Your task to perform on an android device: change the clock style Image 0: 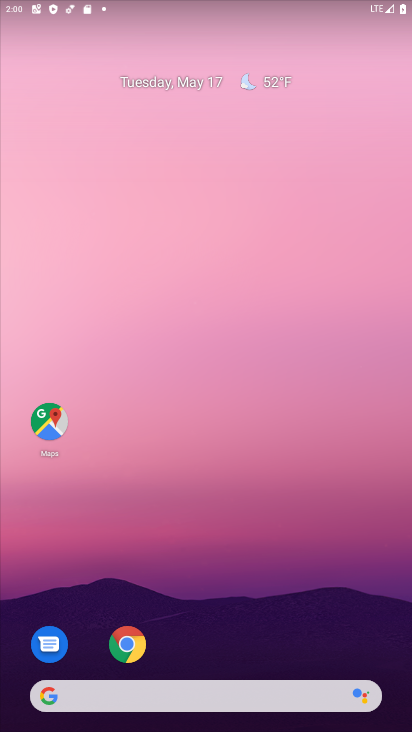
Step 0: drag from (194, 695) to (170, 101)
Your task to perform on an android device: change the clock style Image 1: 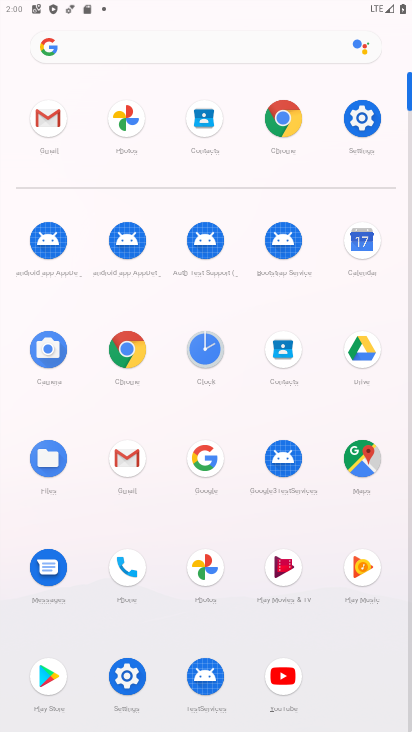
Step 1: click (207, 350)
Your task to perform on an android device: change the clock style Image 2: 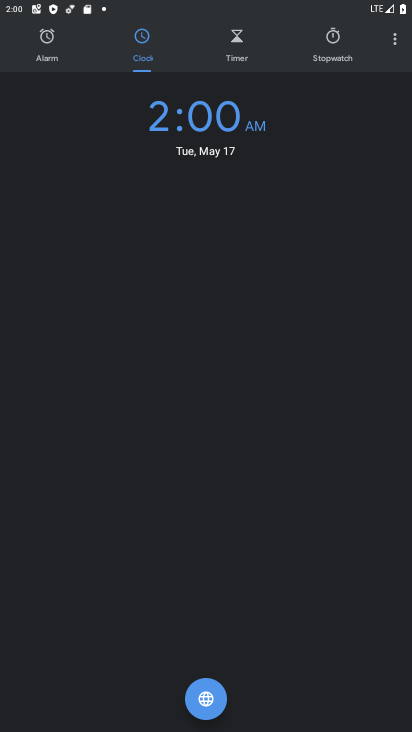
Step 2: click (386, 41)
Your task to perform on an android device: change the clock style Image 3: 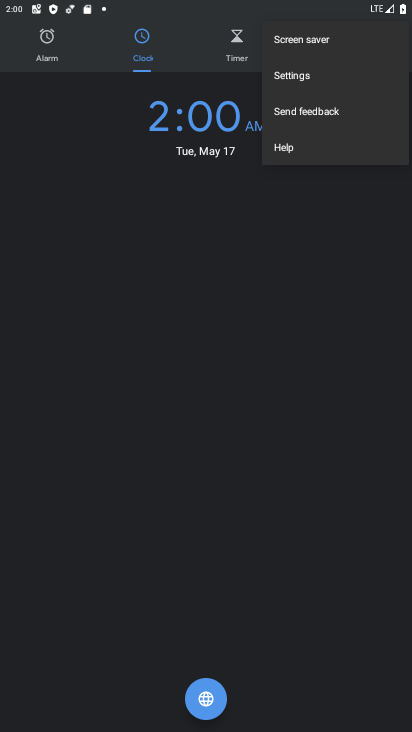
Step 3: click (317, 75)
Your task to perform on an android device: change the clock style Image 4: 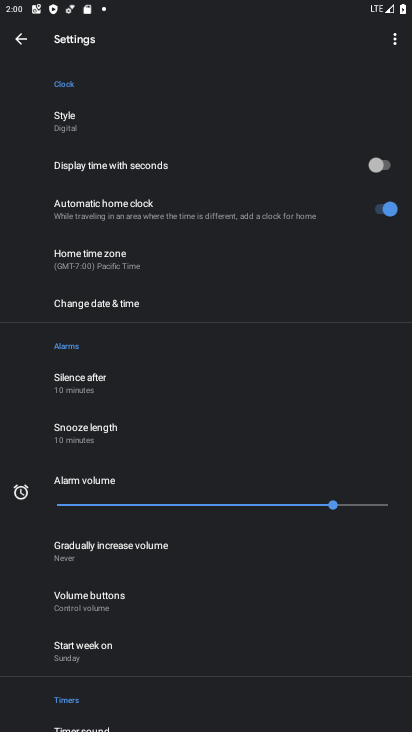
Step 4: click (113, 130)
Your task to perform on an android device: change the clock style Image 5: 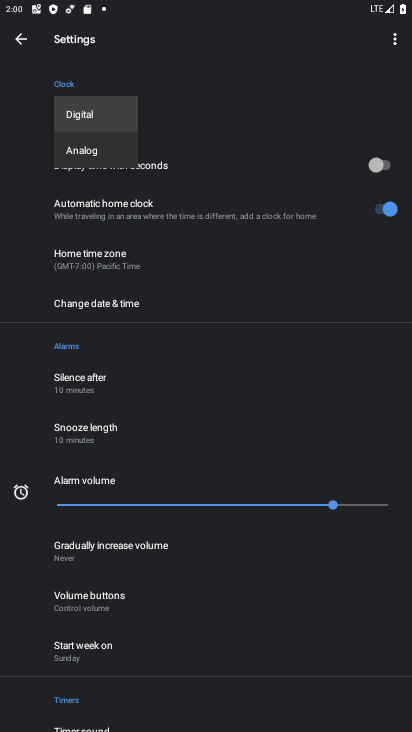
Step 5: click (94, 148)
Your task to perform on an android device: change the clock style Image 6: 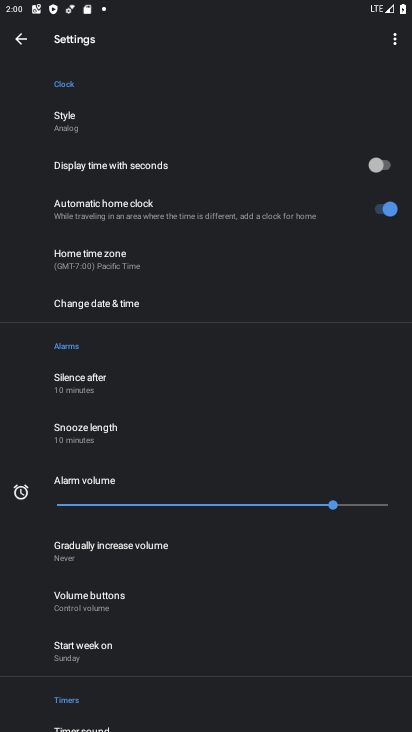
Step 6: task complete